Your task to perform on an android device: Open sound settings Image 0: 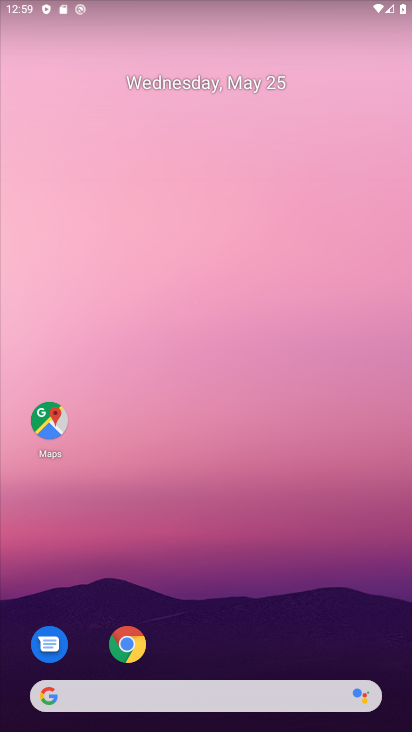
Step 0: drag from (220, 637) to (129, 103)
Your task to perform on an android device: Open sound settings Image 1: 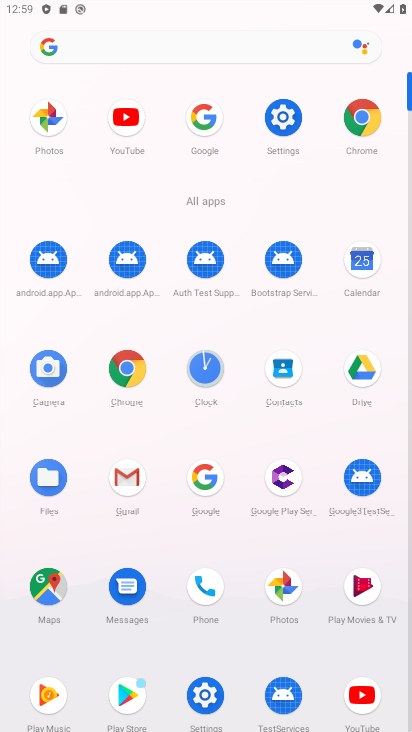
Step 1: click (297, 126)
Your task to perform on an android device: Open sound settings Image 2: 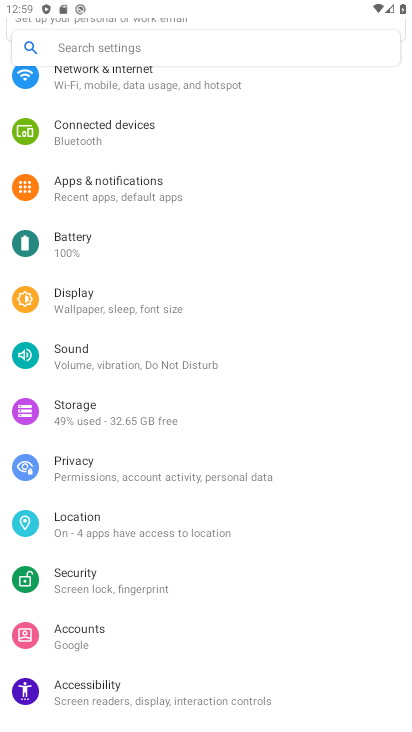
Step 2: click (114, 366)
Your task to perform on an android device: Open sound settings Image 3: 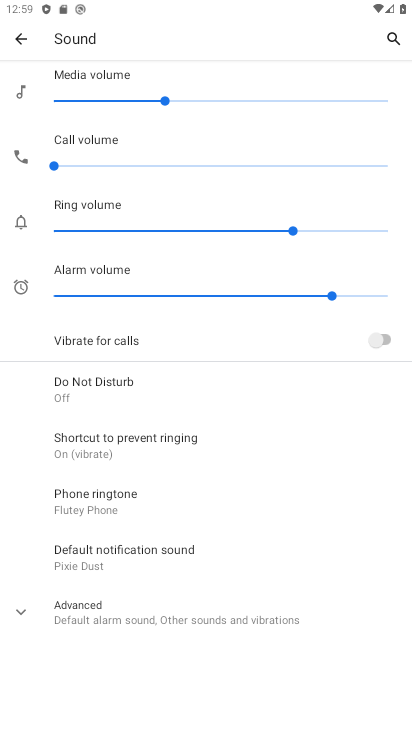
Step 3: task complete